Your task to perform on an android device: open app "Mercado Libre" Image 0: 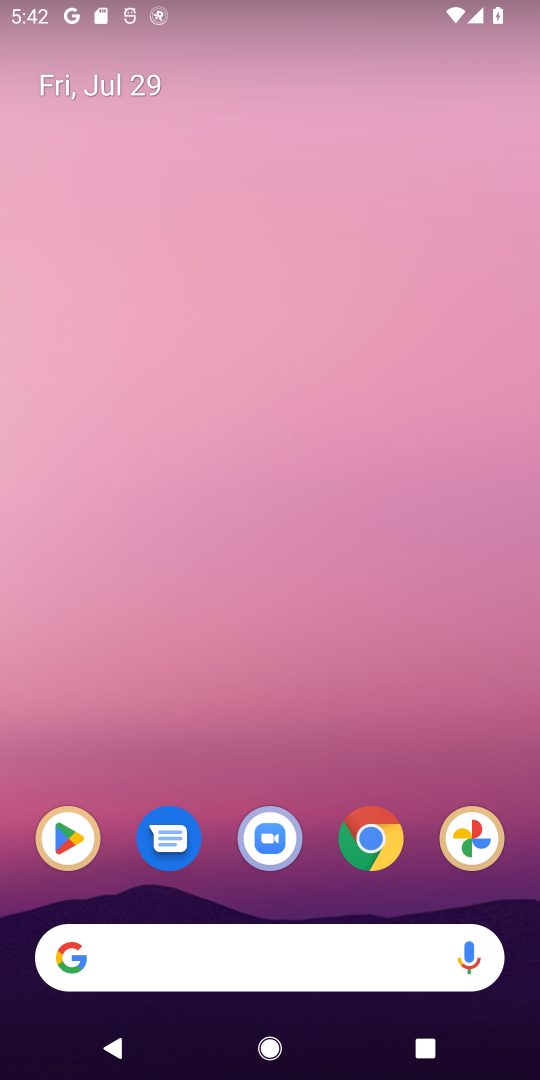
Step 0: click (71, 825)
Your task to perform on an android device: open app "Mercado Libre" Image 1: 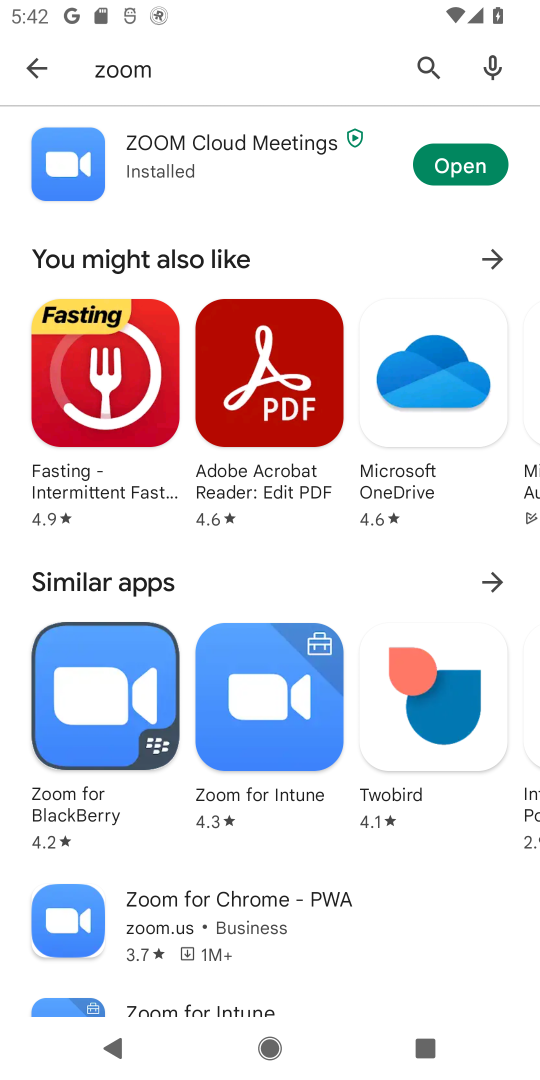
Step 1: click (423, 60)
Your task to perform on an android device: open app "Mercado Libre" Image 2: 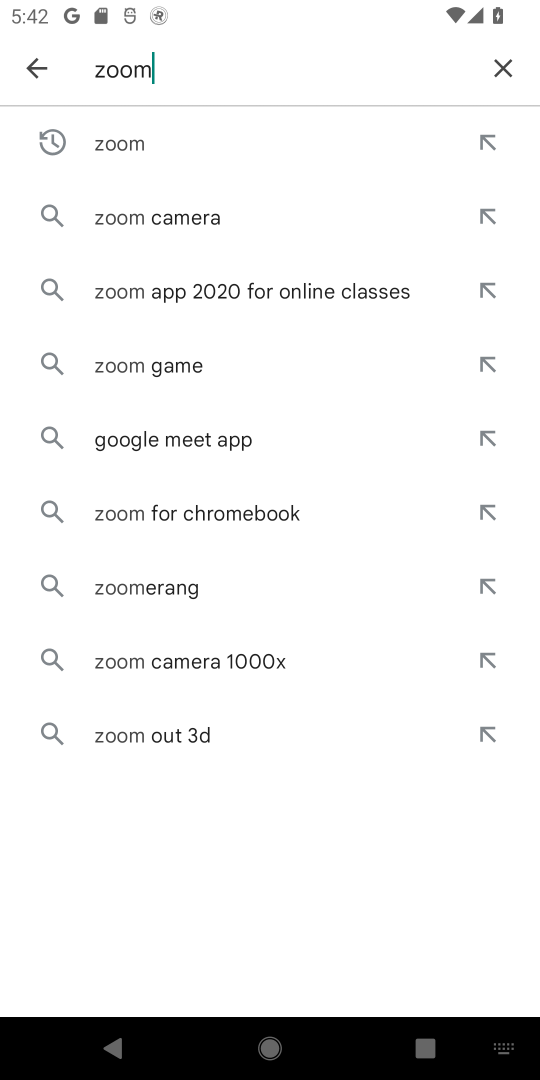
Step 2: click (502, 55)
Your task to perform on an android device: open app "Mercado Libre" Image 3: 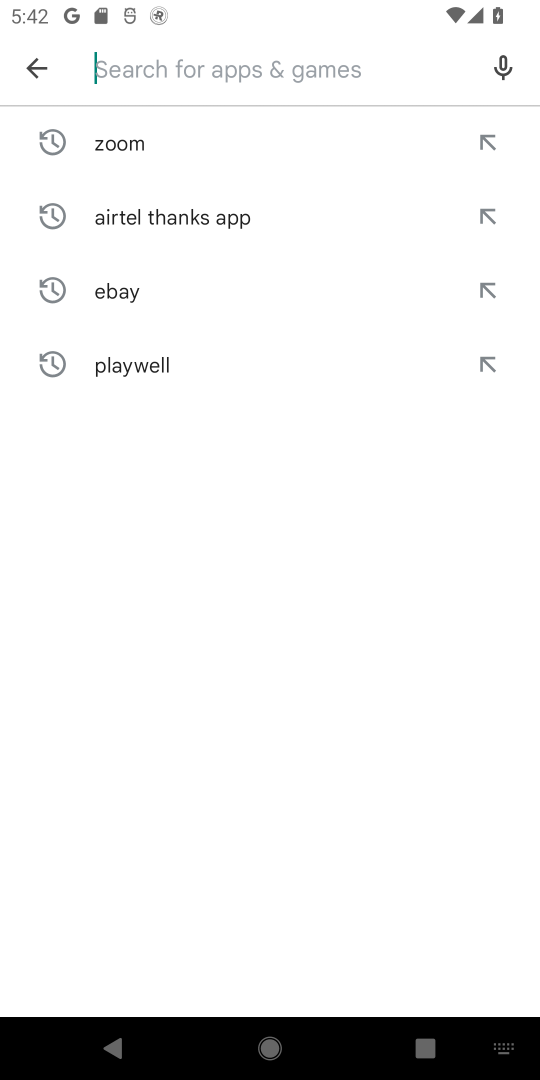
Step 3: type "mercado"
Your task to perform on an android device: open app "Mercado Libre" Image 4: 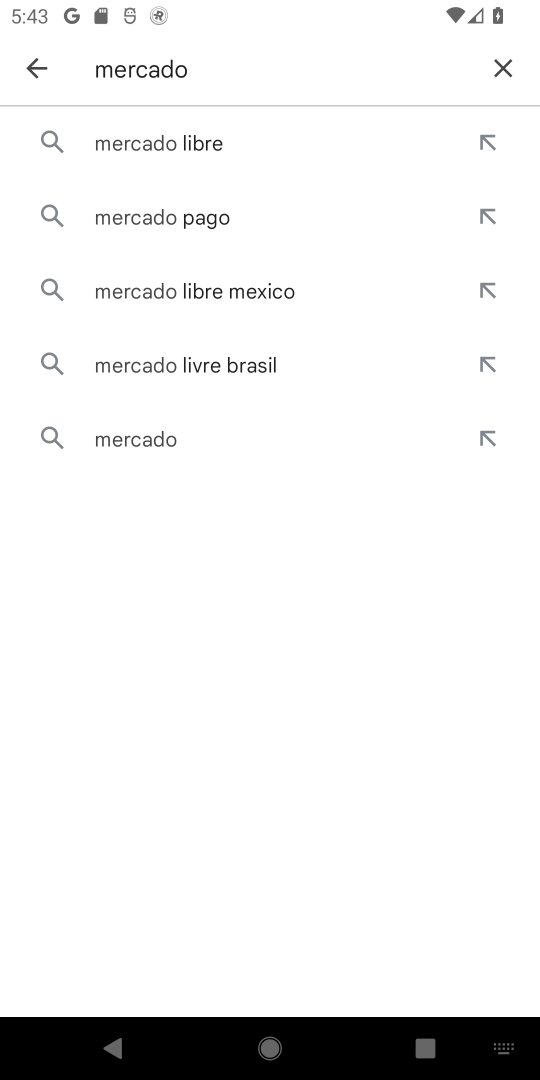
Step 4: click (167, 147)
Your task to perform on an android device: open app "Mercado Libre" Image 5: 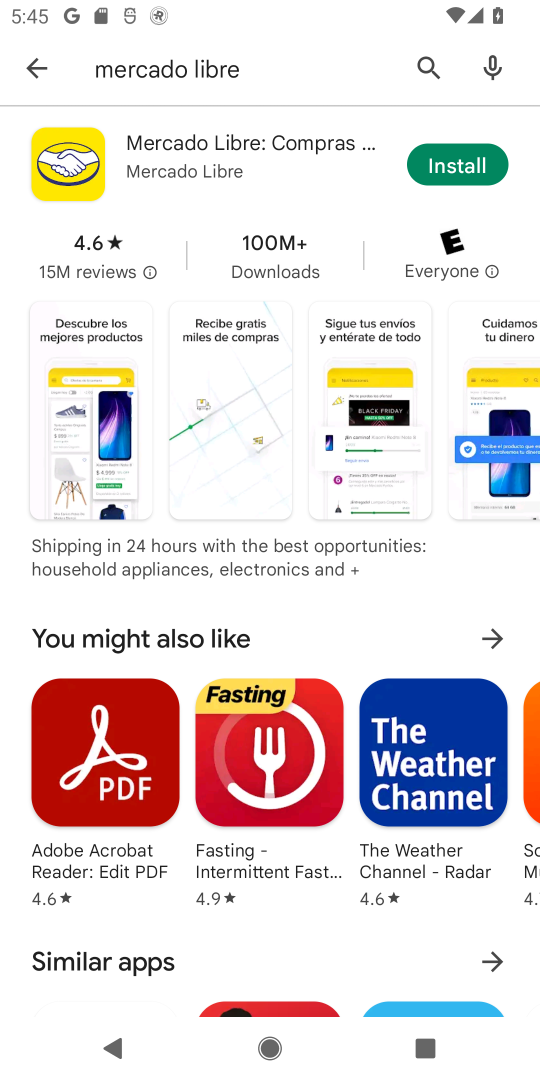
Step 5: task complete